Your task to perform on an android device: read, delete, or share a saved page in the chrome app Image 0: 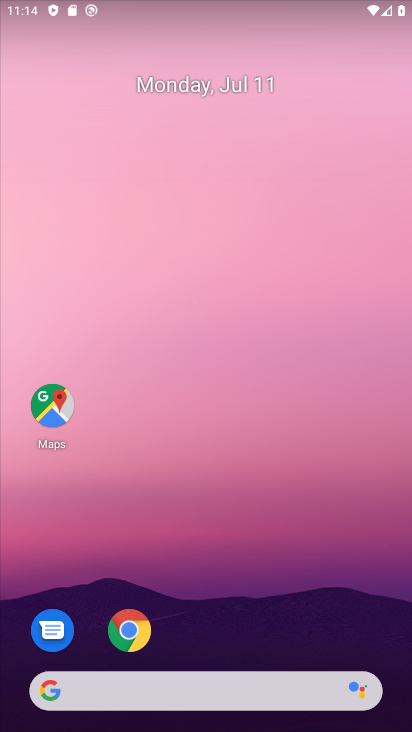
Step 0: click (139, 625)
Your task to perform on an android device: read, delete, or share a saved page in the chrome app Image 1: 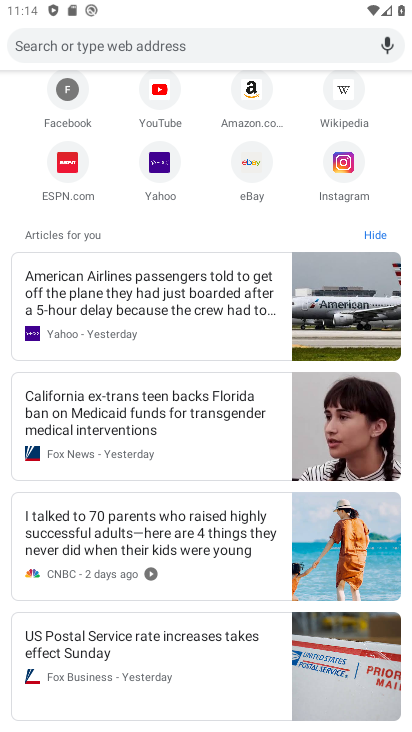
Step 1: drag from (247, 254) to (187, 669)
Your task to perform on an android device: read, delete, or share a saved page in the chrome app Image 2: 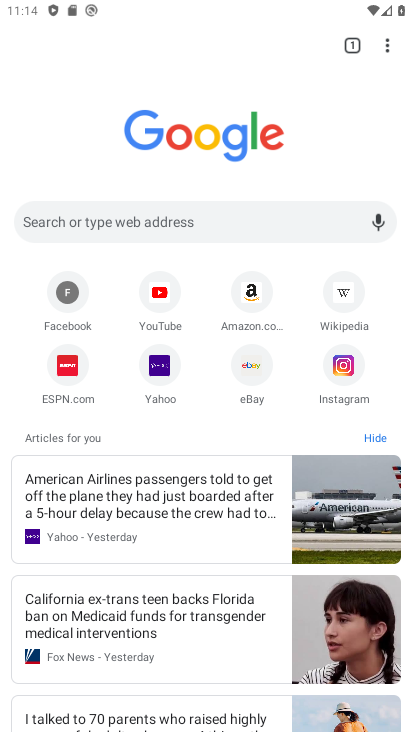
Step 2: click (386, 39)
Your task to perform on an android device: read, delete, or share a saved page in the chrome app Image 3: 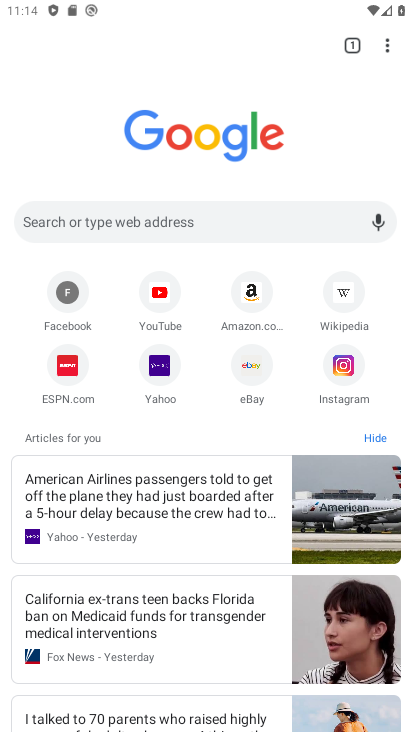
Step 3: click (385, 37)
Your task to perform on an android device: read, delete, or share a saved page in the chrome app Image 4: 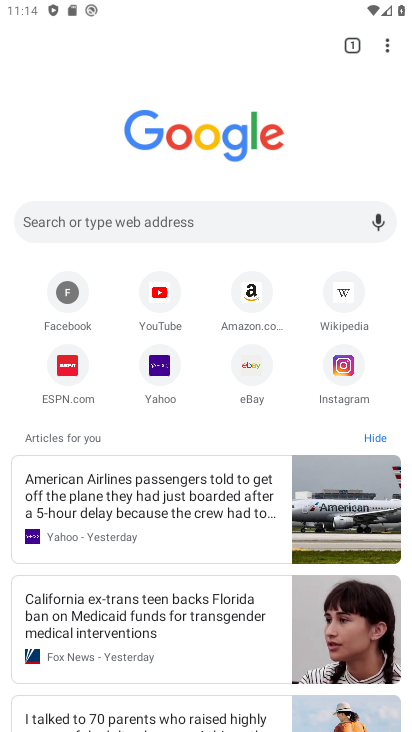
Step 4: click (386, 45)
Your task to perform on an android device: read, delete, or share a saved page in the chrome app Image 5: 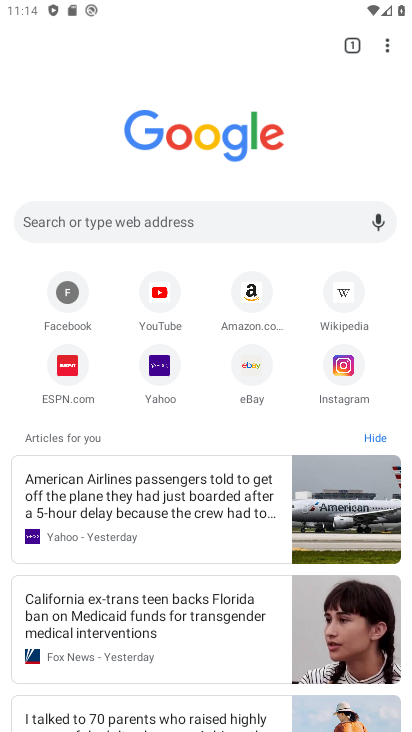
Step 5: click (386, 46)
Your task to perform on an android device: read, delete, or share a saved page in the chrome app Image 6: 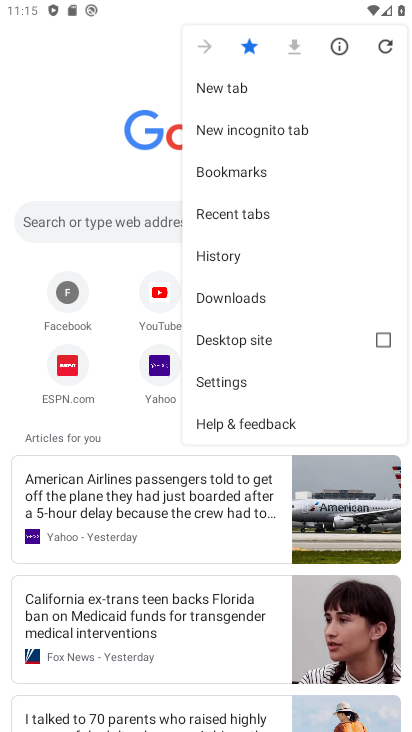
Step 6: click (231, 303)
Your task to perform on an android device: read, delete, or share a saved page in the chrome app Image 7: 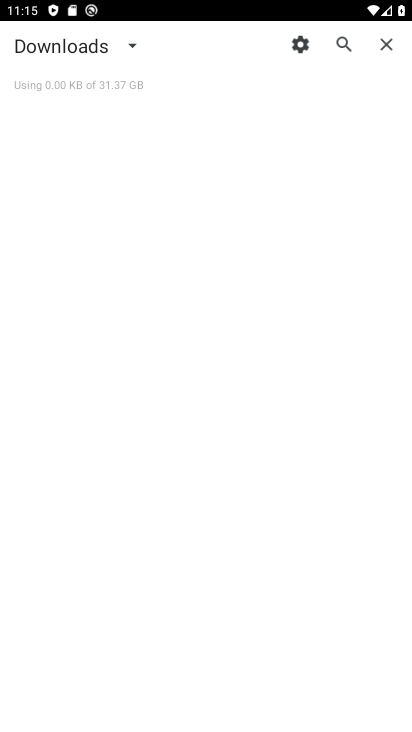
Step 7: task complete